Your task to perform on an android device: open app "Calculator" Image 0: 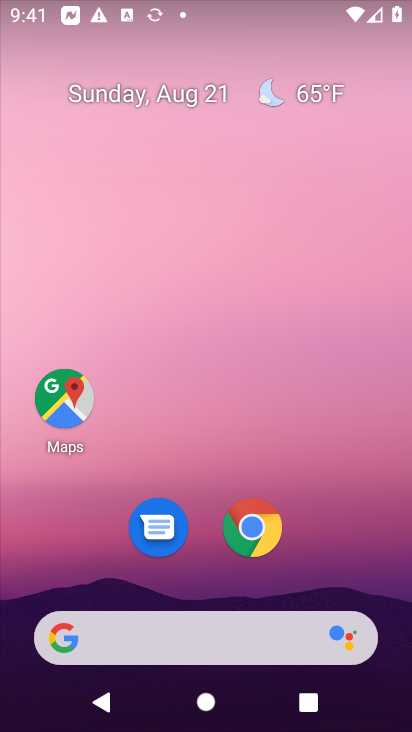
Step 0: drag from (196, 600) to (241, 27)
Your task to perform on an android device: open app "Calculator" Image 1: 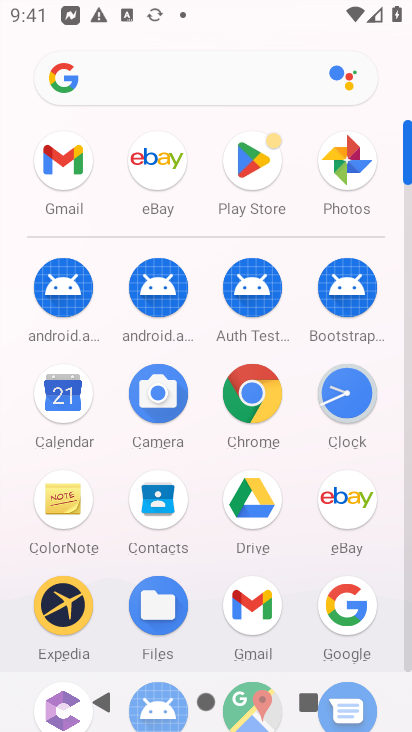
Step 1: click (260, 182)
Your task to perform on an android device: open app "Calculator" Image 2: 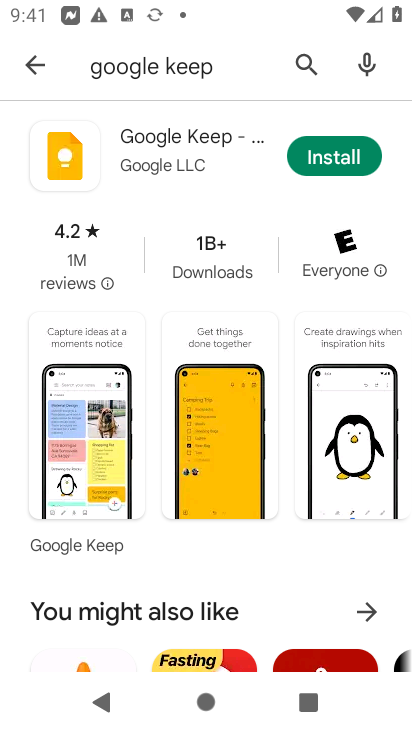
Step 2: click (177, 71)
Your task to perform on an android device: open app "Calculator" Image 3: 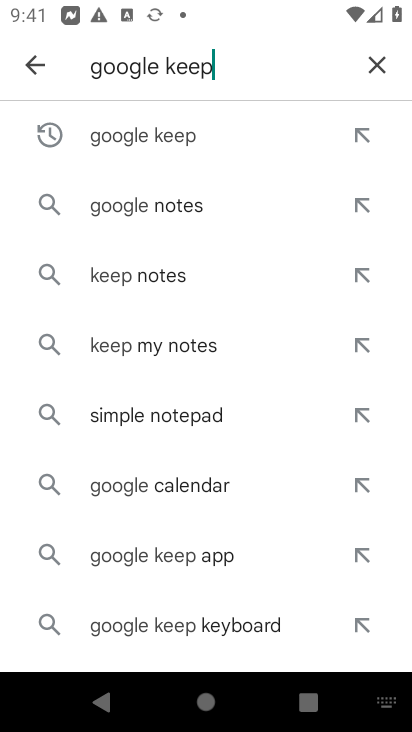
Step 3: click (379, 65)
Your task to perform on an android device: open app "Calculator" Image 4: 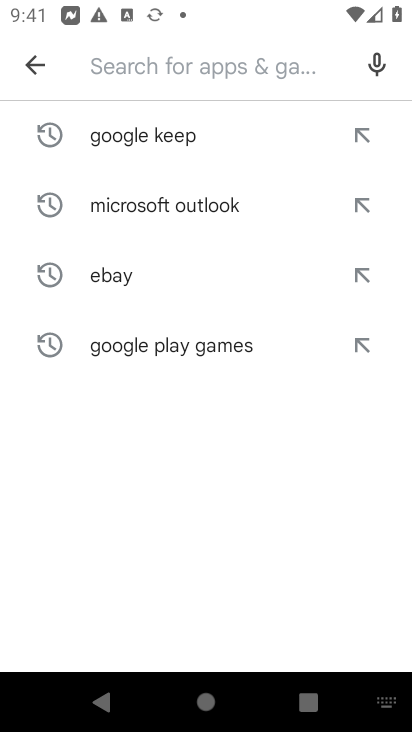
Step 4: type "calculator"
Your task to perform on an android device: open app "Calculator" Image 5: 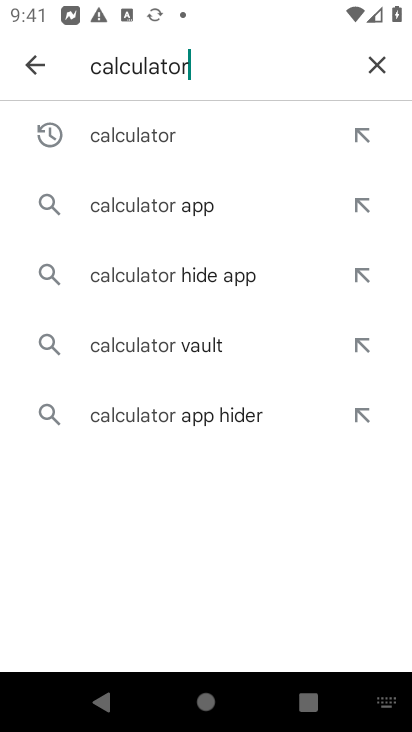
Step 5: click (160, 138)
Your task to perform on an android device: open app "Calculator" Image 6: 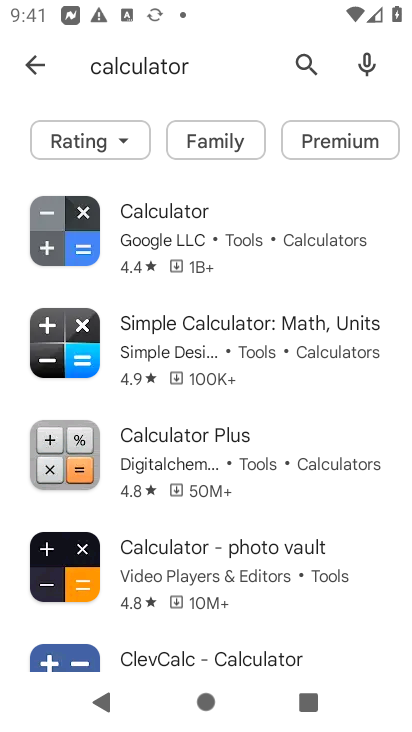
Step 6: click (196, 228)
Your task to perform on an android device: open app "Calculator" Image 7: 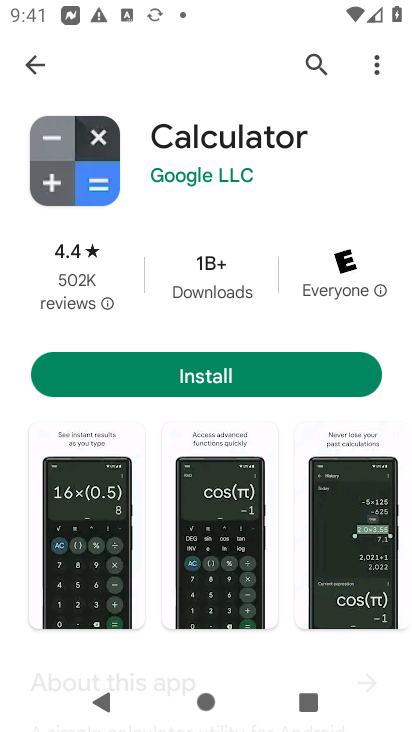
Step 7: task complete